Your task to perform on an android device: Play the last video I watched on Youtube Image 0: 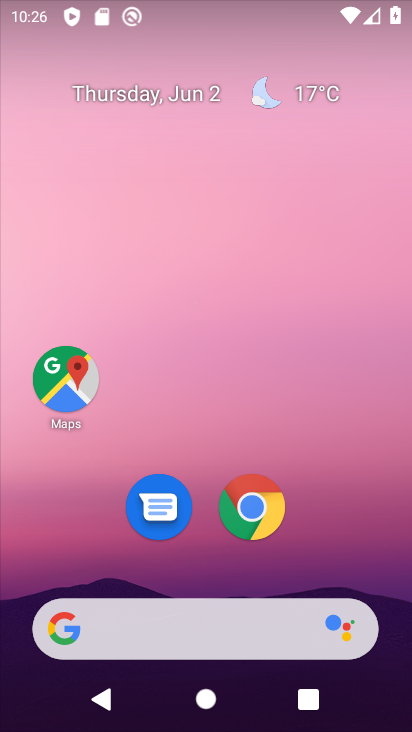
Step 0: drag from (237, 575) to (396, 493)
Your task to perform on an android device: Play the last video I watched on Youtube Image 1: 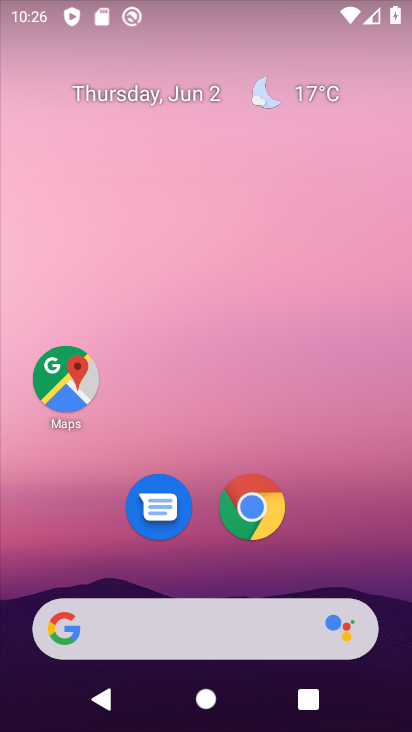
Step 1: drag from (191, 624) to (407, 0)
Your task to perform on an android device: Play the last video I watched on Youtube Image 2: 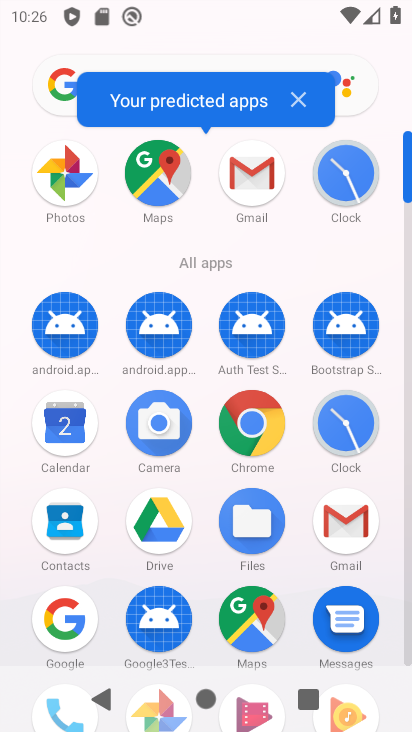
Step 2: drag from (190, 648) to (287, 283)
Your task to perform on an android device: Play the last video I watched on Youtube Image 3: 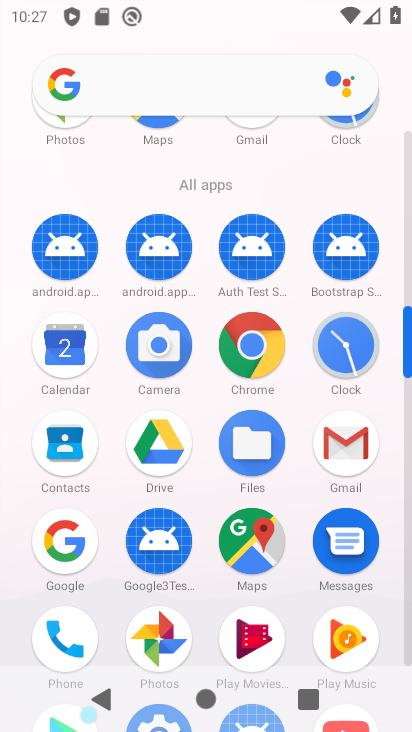
Step 3: click (346, 722)
Your task to perform on an android device: Play the last video I watched on Youtube Image 4: 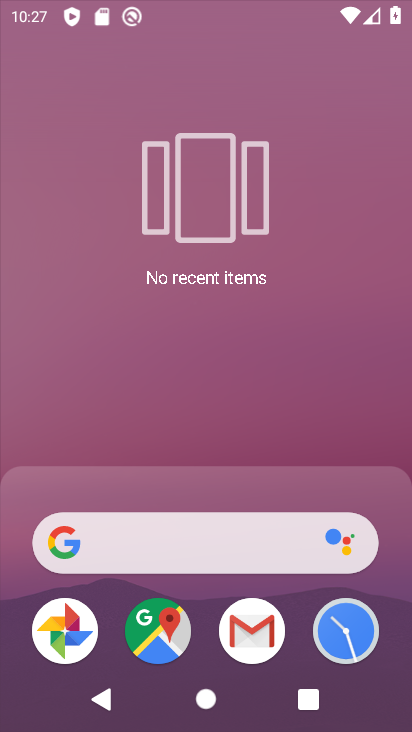
Step 4: drag from (195, 527) to (280, 89)
Your task to perform on an android device: Play the last video I watched on Youtube Image 5: 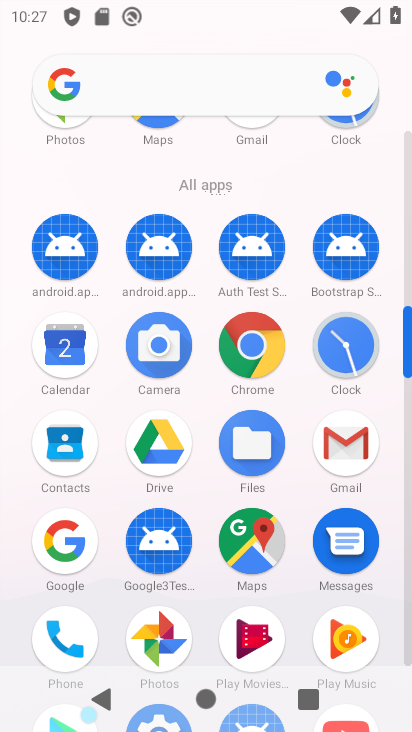
Step 5: drag from (383, 611) to (409, 243)
Your task to perform on an android device: Play the last video I watched on Youtube Image 6: 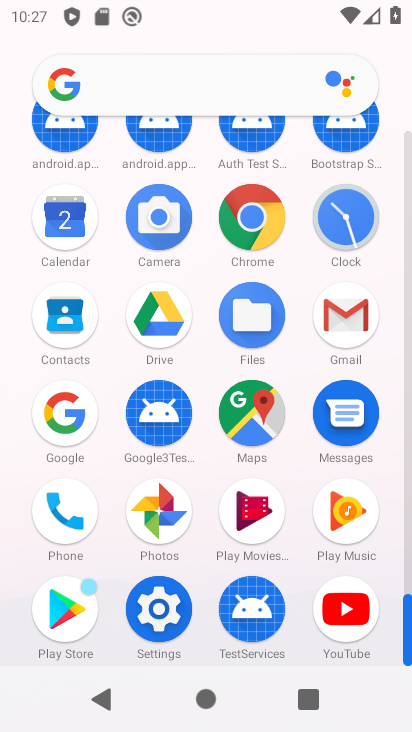
Step 6: click (342, 613)
Your task to perform on an android device: Play the last video I watched on Youtube Image 7: 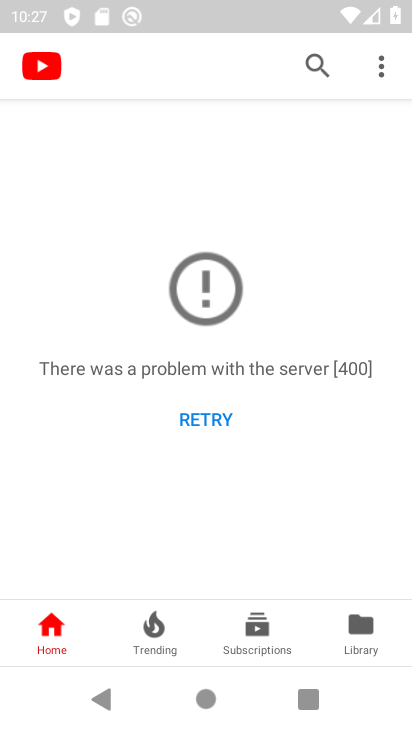
Step 7: task complete